Your task to perform on an android device: Open my contact list Image 0: 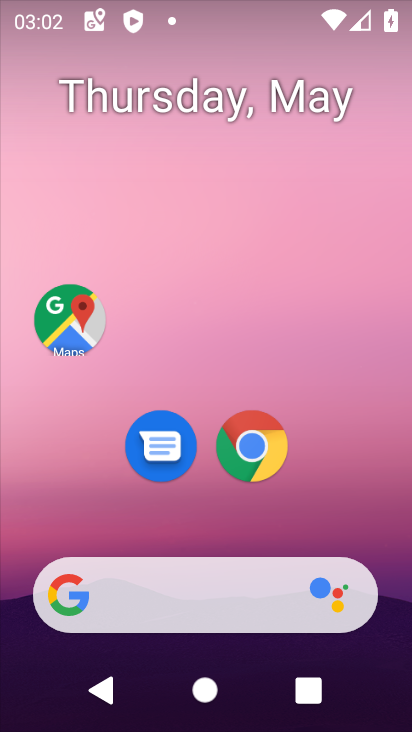
Step 0: drag from (316, 520) to (307, 0)
Your task to perform on an android device: Open my contact list Image 1: 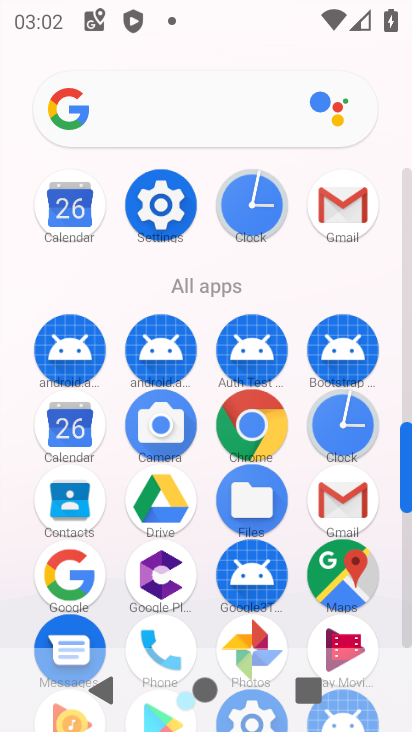
Step 1: click (71, 504)
Your task to perform on an android device: Open my contact list Image 2: 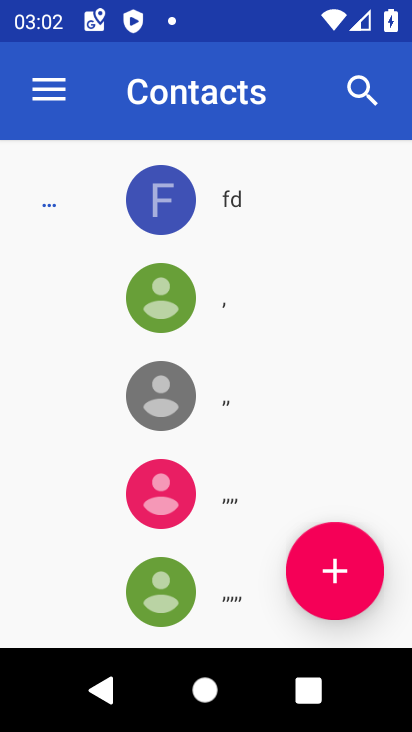
Step 2: task complete